Your task to perform on an android device: toggle pop-ups in chrome Image 0: 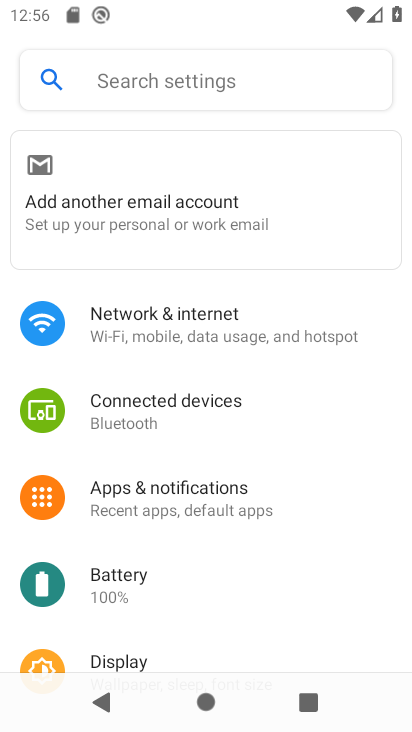
Step 0: press home button
Your task to perform on an android device: toggle pop-ups in chrome Image 1: 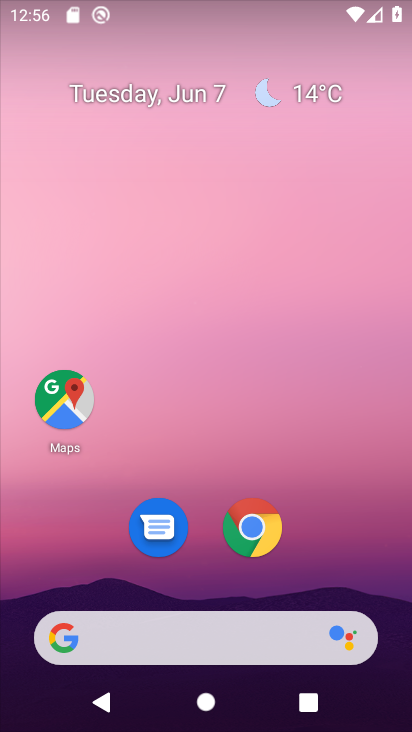
Step 1: click (239, 534)
Your task to perform on an android device: toggle pop-ups in chrome Image 2: 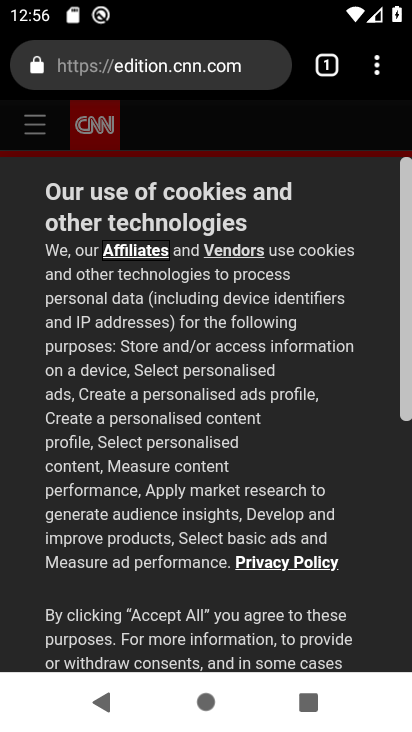
Step 2: click (376, 68)
Your task to perform on an android device: toggle pop-ups in chrome Image 3: 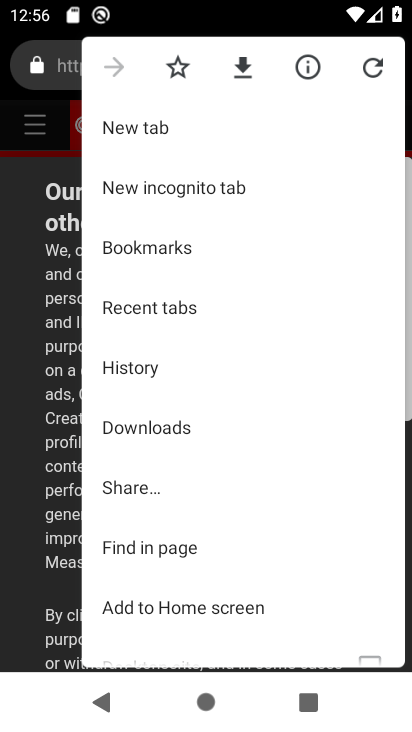
Step 3: drag from (184, 577) to (181, 216)
Your task to perform on an android device: toggle pop-ups in chrome Image 4: 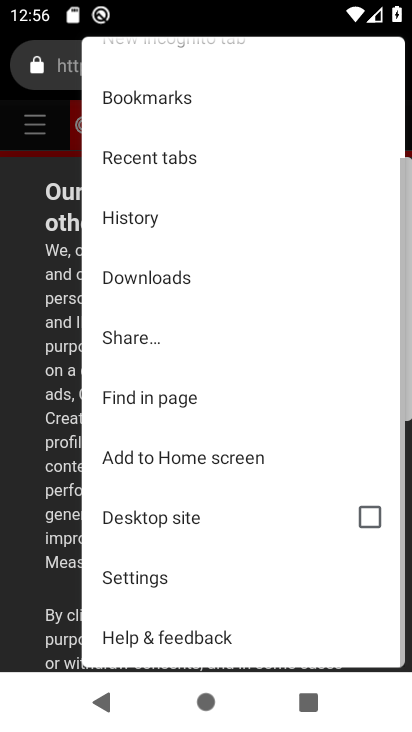
Step 4: click (172, 579)
Your task to perform on an android device: toggle pop-ups in chrome Image 5: 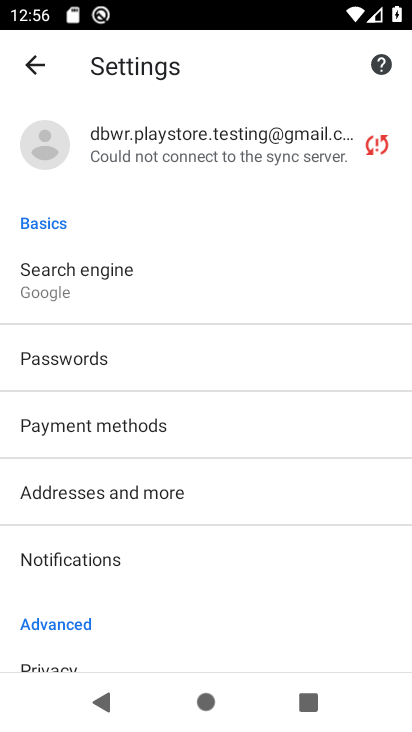
Step 5: drag from (181, 586) to (180, 158)
Your task to perform on an android device: toggle pop-ups in chrome Image 6: 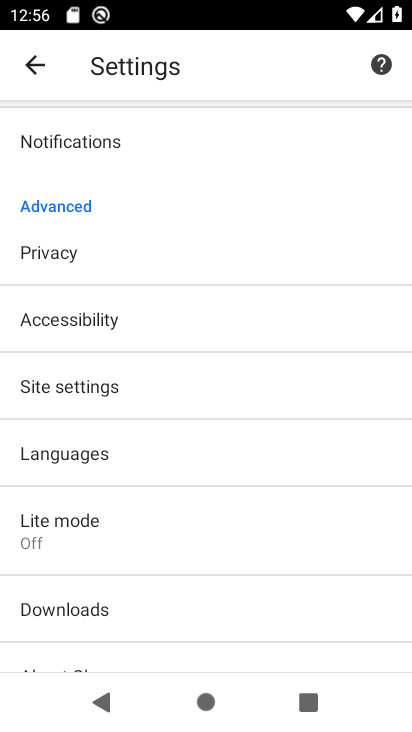
Step 6: click (109, 382)
Your task to perform on an android device: toggle pop-ups in chrome Image 7: 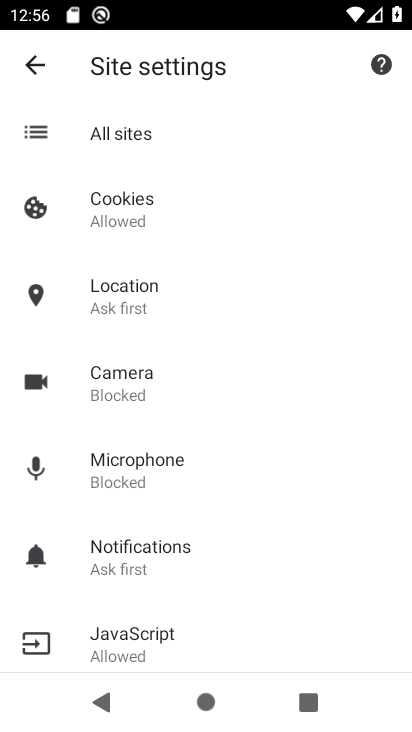
Step 7: drag from (152, 587) to (163, 154)
Your task to perform on an android device: toggle pop-ups in chrome Image 8: 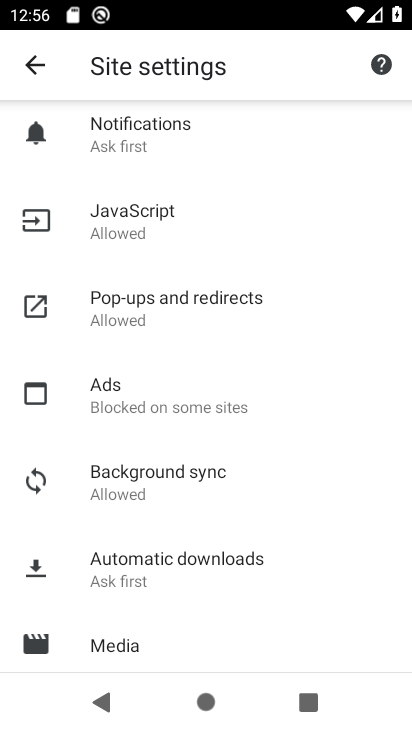
Step 8: click (206, 312)
Your task to perform on an android device: toggle pop-ups in chrome Image 9: 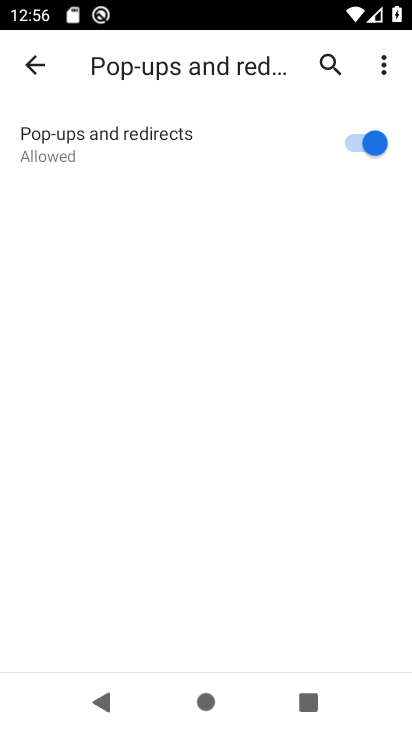
Step 9: click (390, 136)
Your task to perform on an android device: toggle pop-ups in chrome Image 10: 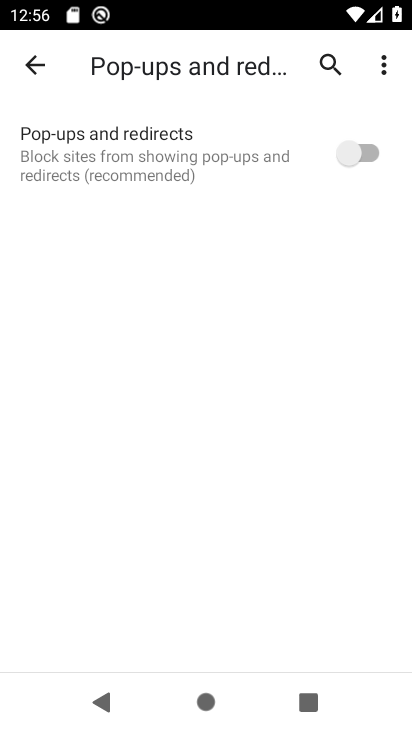
Step 10: task complete